Your task to perform on an android device: See recent photos Image 0: 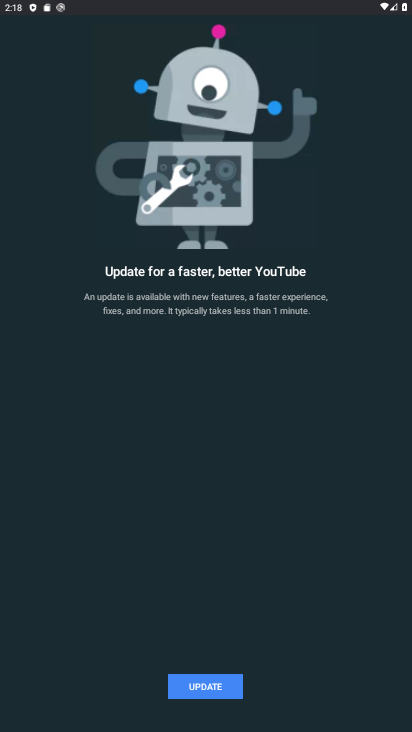
Step 0: press back button
Your task to perform on an android device: See recent photos Image 1: 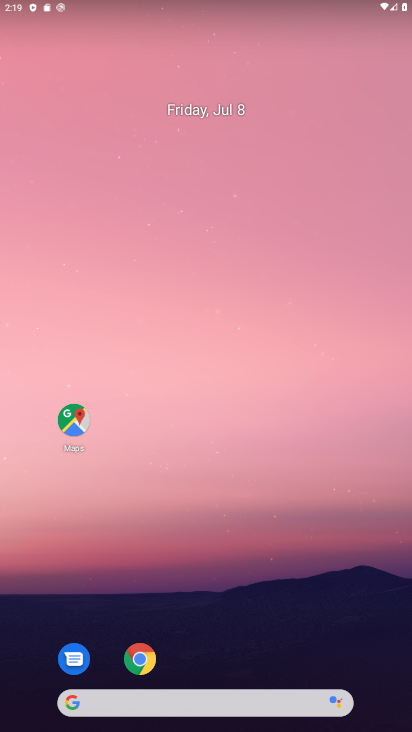
Step 1: drag from (251, 652) to (266, 212)
Your task to perform on an android device: See recent photos Image 2: 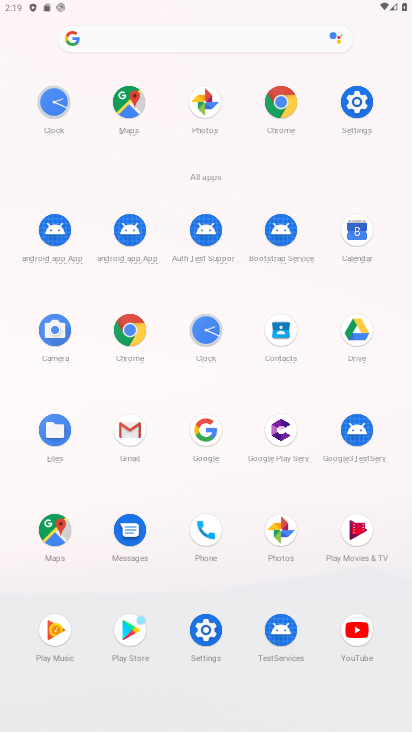
Step 2: click (281, 530)
Your task to perform on an android device: See recent photos Image 3: 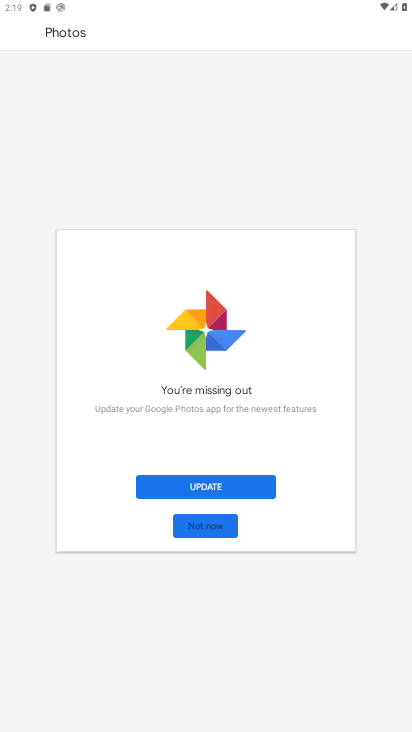
Step 3: click (213, 533)
Your task to perform on an android device: See recent photos Image 4: 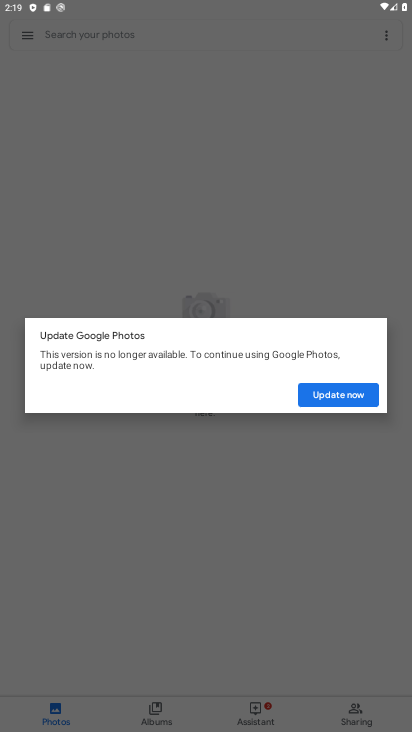
Step 4: click (338, 383)
Your task to perform on an android device: See recent photos Image 5: 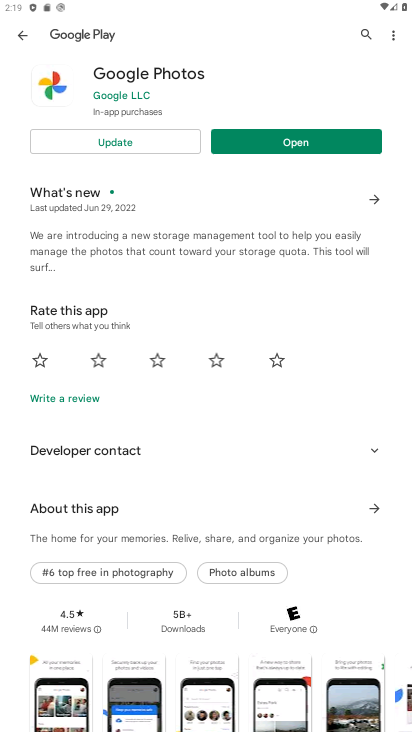
Step 5: click (137, 138)
Your task to perform on an android device: See recent photos Image 6: 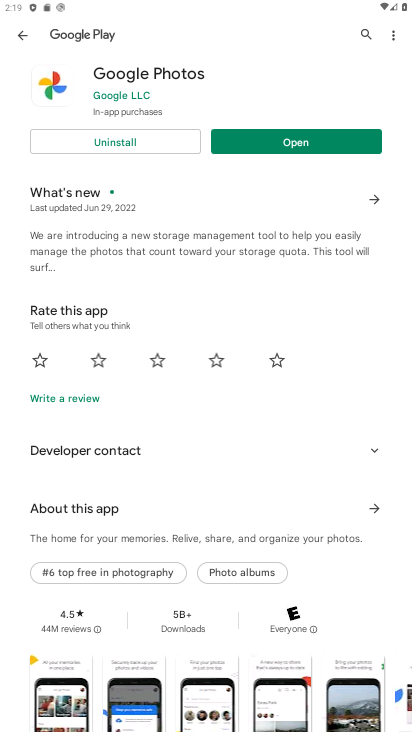
Step 6: click (246, 138)
Your task to perform on an android device: See recent photos Image 7: 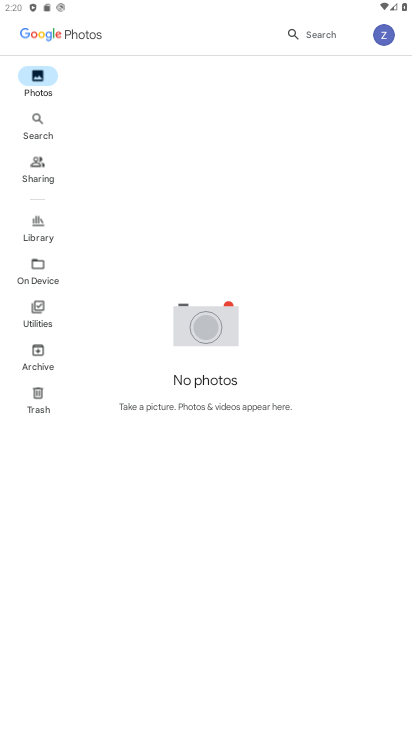
Step 7: task complete